Your task to perform on an android device: open app "DoorDash - Food Delivery" (install if not already installed) and go to login screen Image 0: 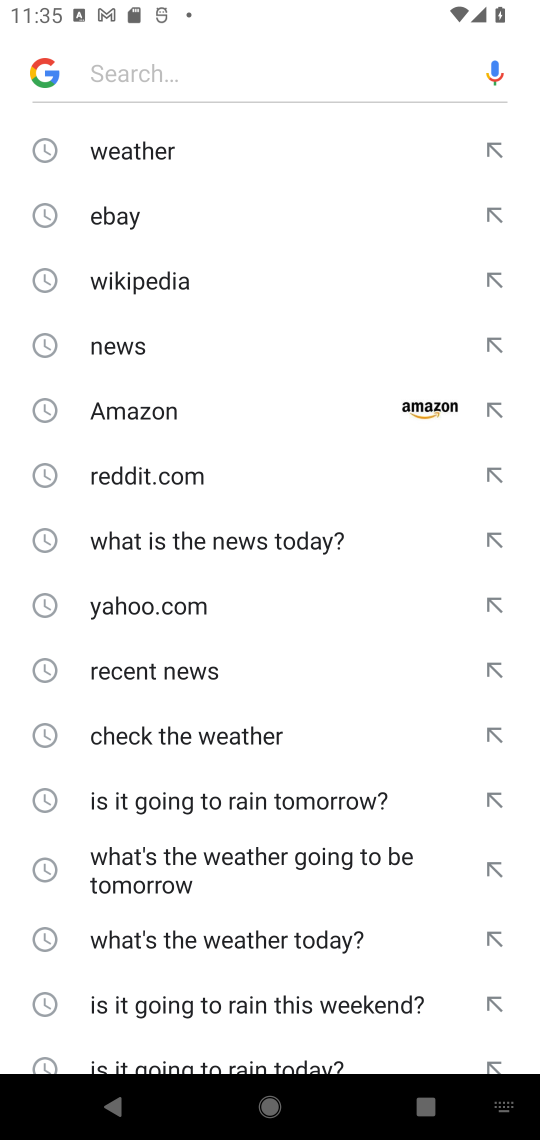
Step 0: press home button
Your task to perform on an android device: open app "DoorDash - Food Delivery" (install if not already installed) and go to login screen Image 1: 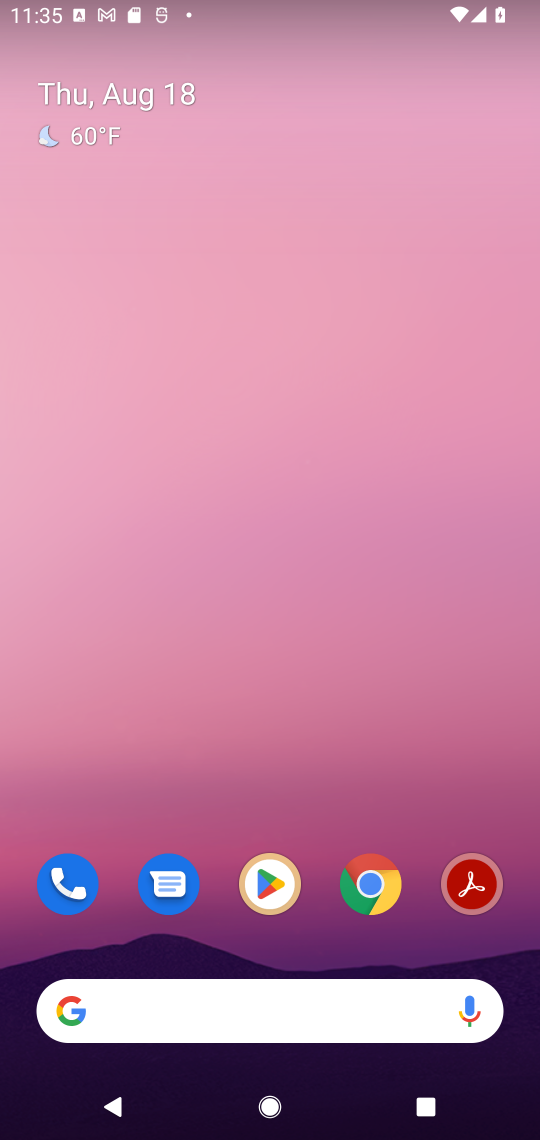
Step 1: drag from (191, 1017) to (362, 23)
Your task to perform on an android device: open app "DoorDash - Food Delivery" (install if not already installed) and go to login screen Image 2: 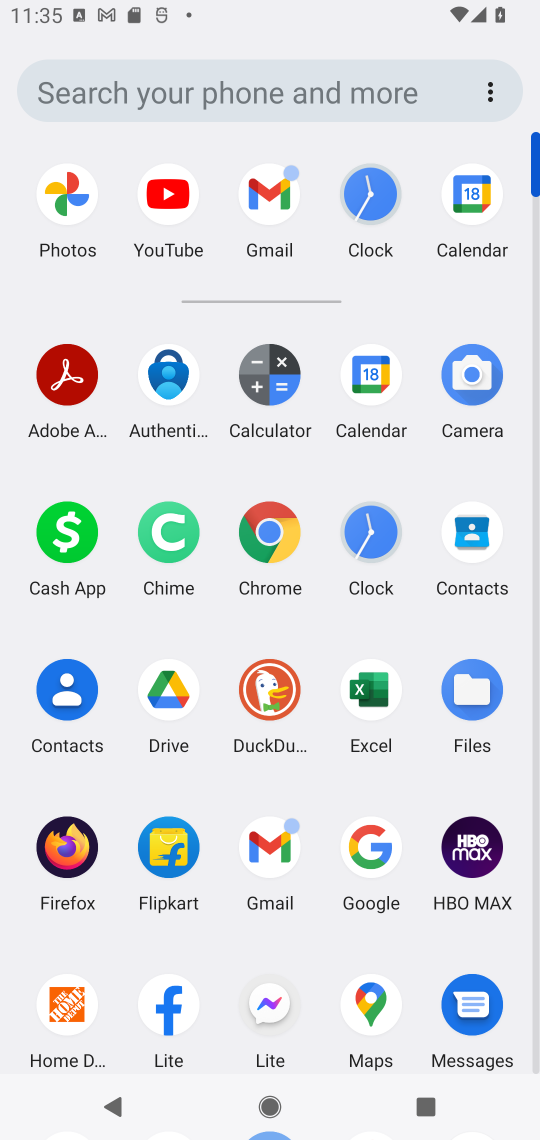
Step 2: drag from (212, 952) to (270, 367)
Your task to perform on an android device: open app "DoorDash - Food Delivery" (install if not already installed) and go to login screen Image 3: 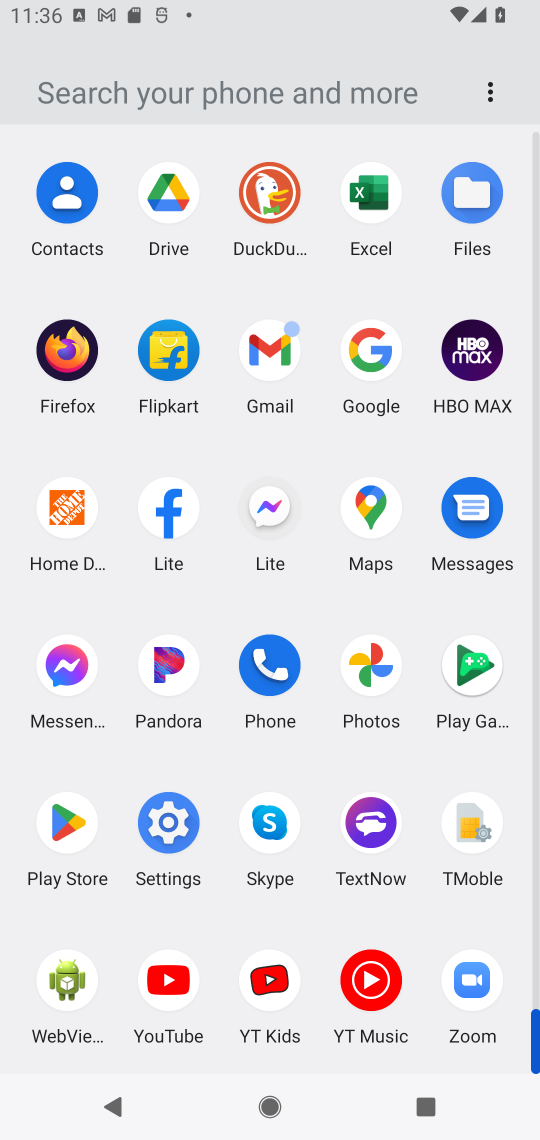
Step 3: click (73, 822)
Your task to perform on an android device: open app "DoorDash - Food Delivery" (install if not already installed) and go to login screen Image 4: 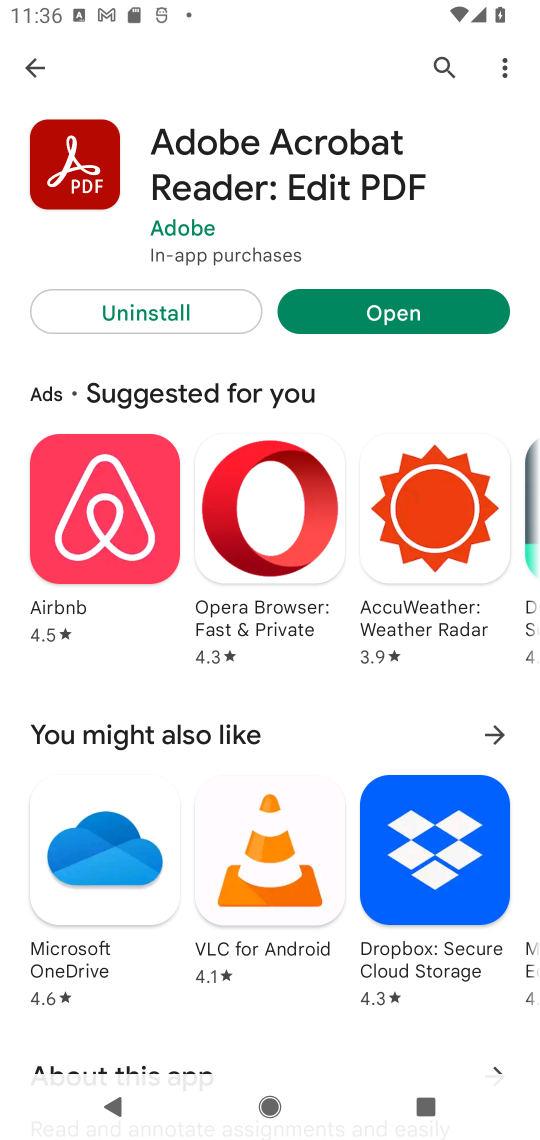
Step 4: press back button
Your task to perform on an android device: open app "DoorDash - Food Delivery" (install if not already installed) and go to login screen Image 5: 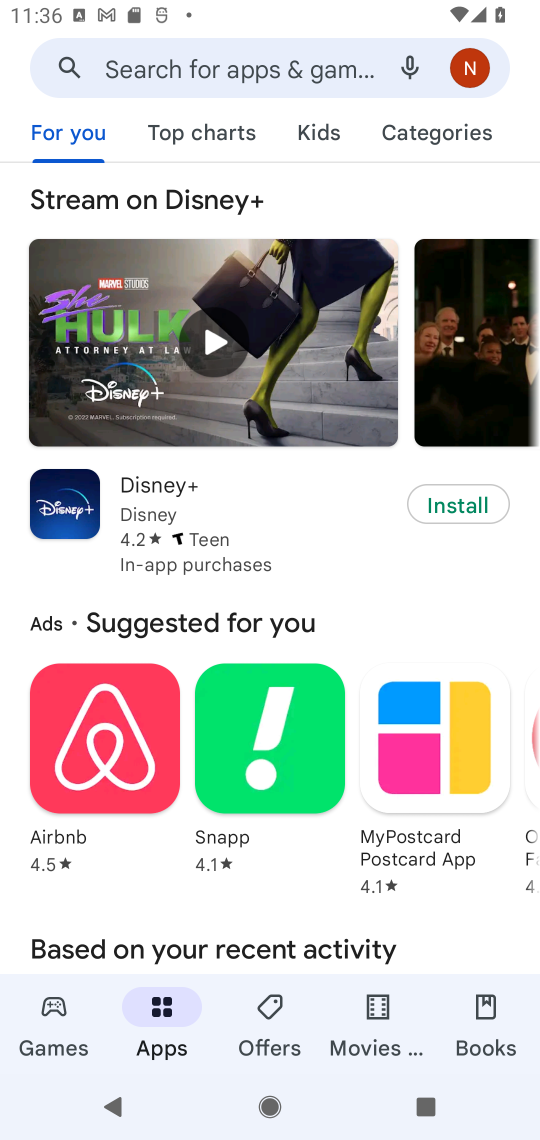
Step 5: click (293, 75)
Your task to perform on an android device: open app "DoorDash - Food Delivery" (install if not already installed) and go to login screen Image 6: 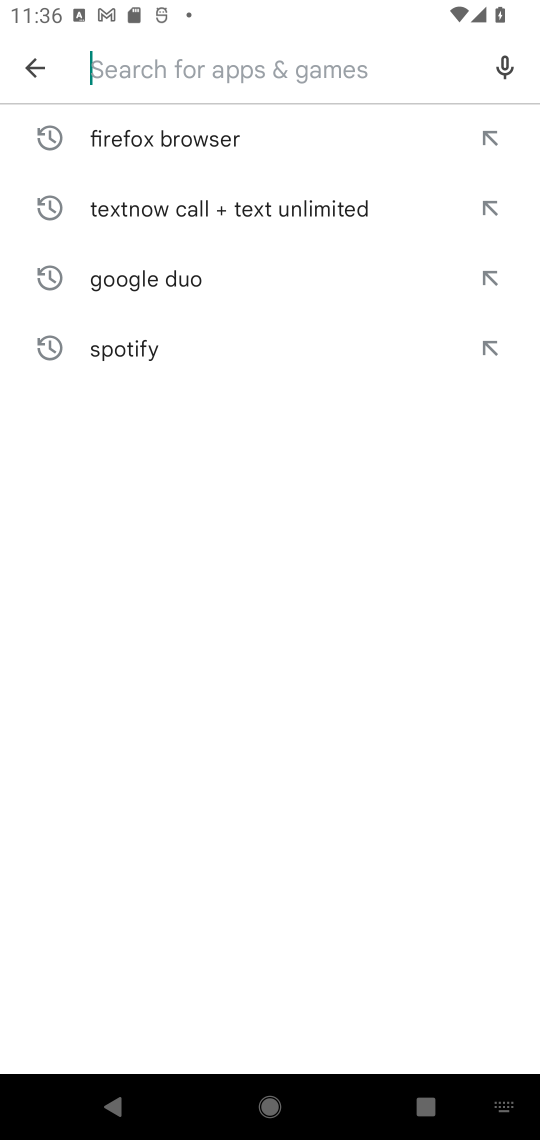
Step 6: type "DoorDash - Food Delivery"
Your task to perform on an android device: open app "DoorDash - Food Delivery" (install if not already installed) and go to login screen Image 7: 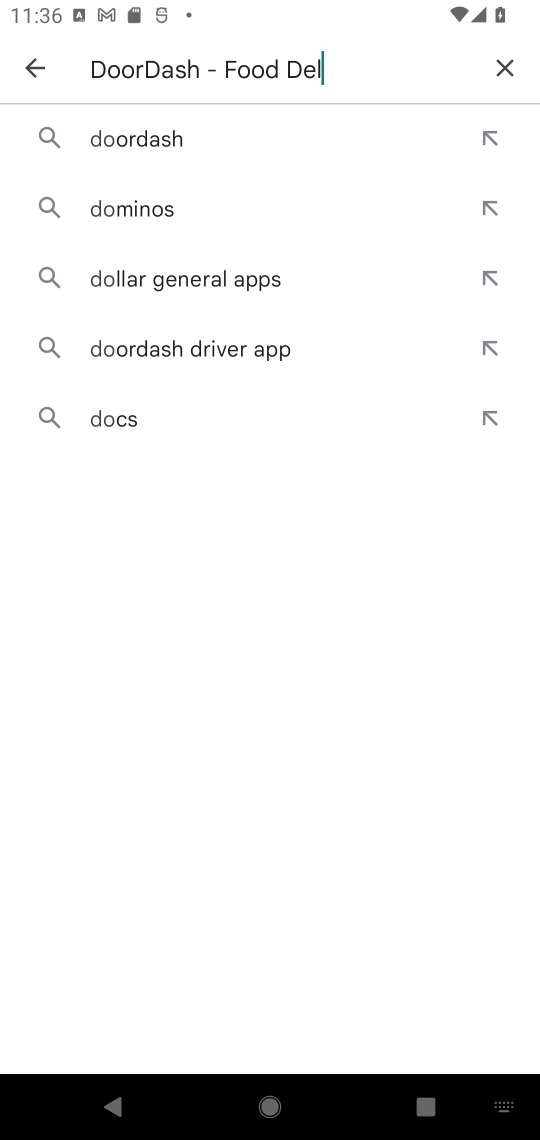
Step 7: type ""
Your task to perform on an android device: open app "DoorDash - Food Delivery" (install if not already installed) and go to login screen Image 8: 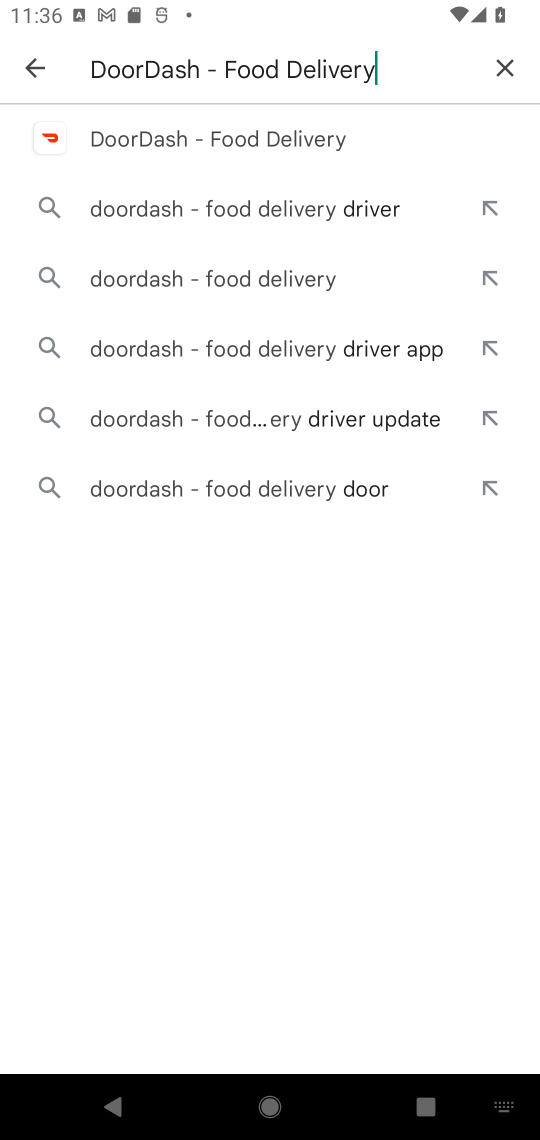
Step 8: click (241, 132)
Your task to perform on an android device: open app "DoorDash - Food Delivery" (install if not already installed) and go to login screen Image 9: 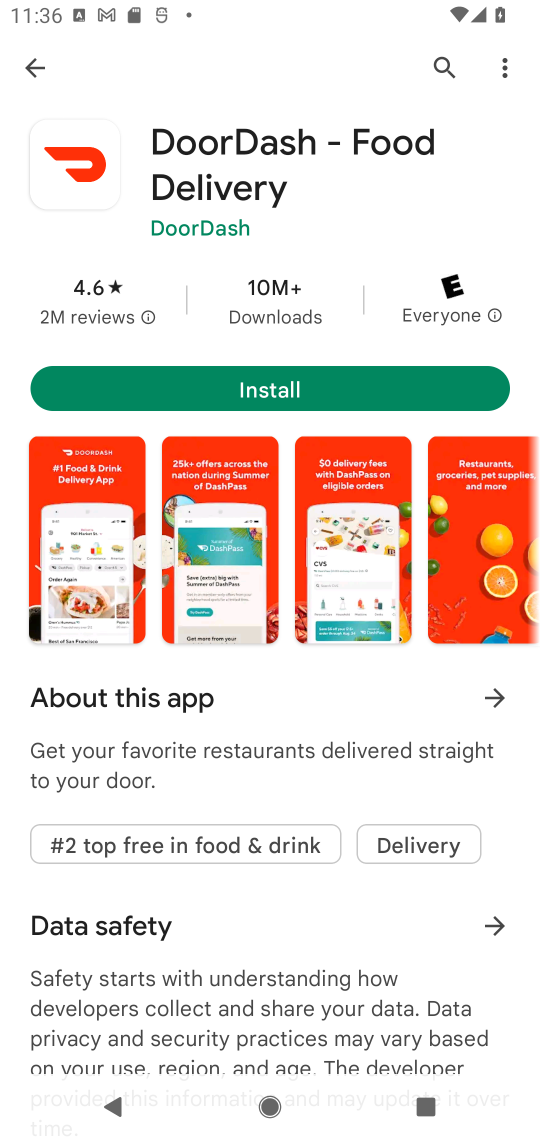
Step 9: click (284, 386)
Your task to perform on an android device: open app "DoorDash - Food Delivery" (install if not already installed) and go to login screen Image 10: 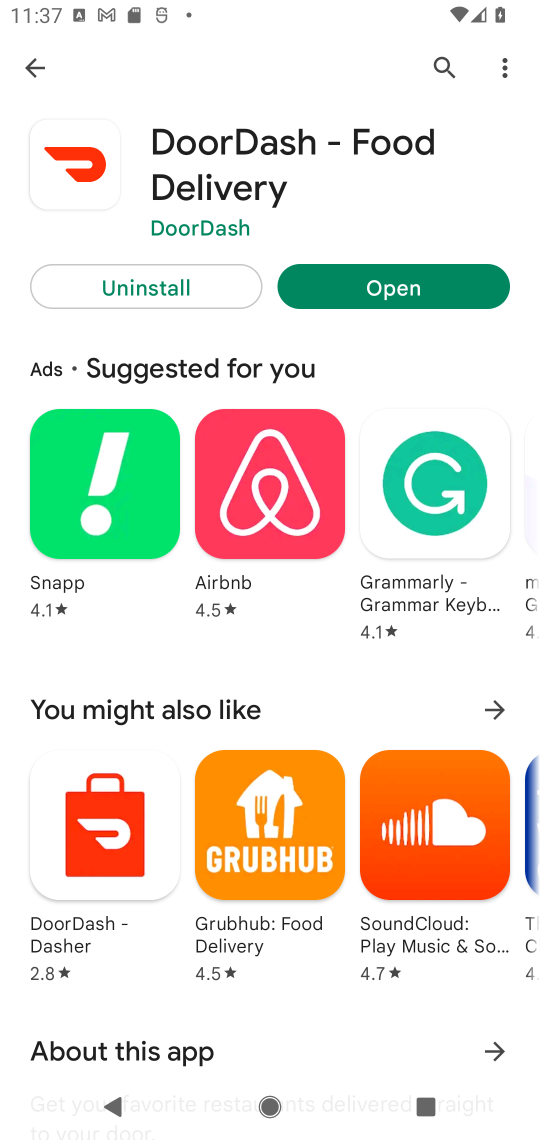
Step 10: click (403, 283)
Your task to perform on an android device: open app "DoorDash - Food Delivery" (install if not already installed) and go to login screen Image 11: 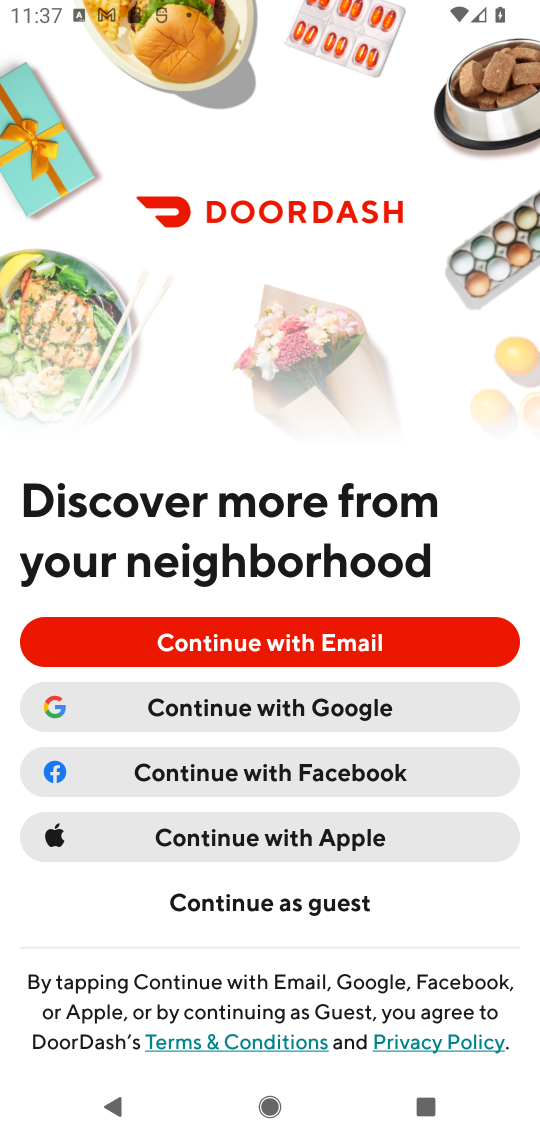
Step 11: click (347, 643)
Your task to perform on an android device: open app "DoorDash - Food Delivery" (install if not already installed) and go to login screen Image 12: 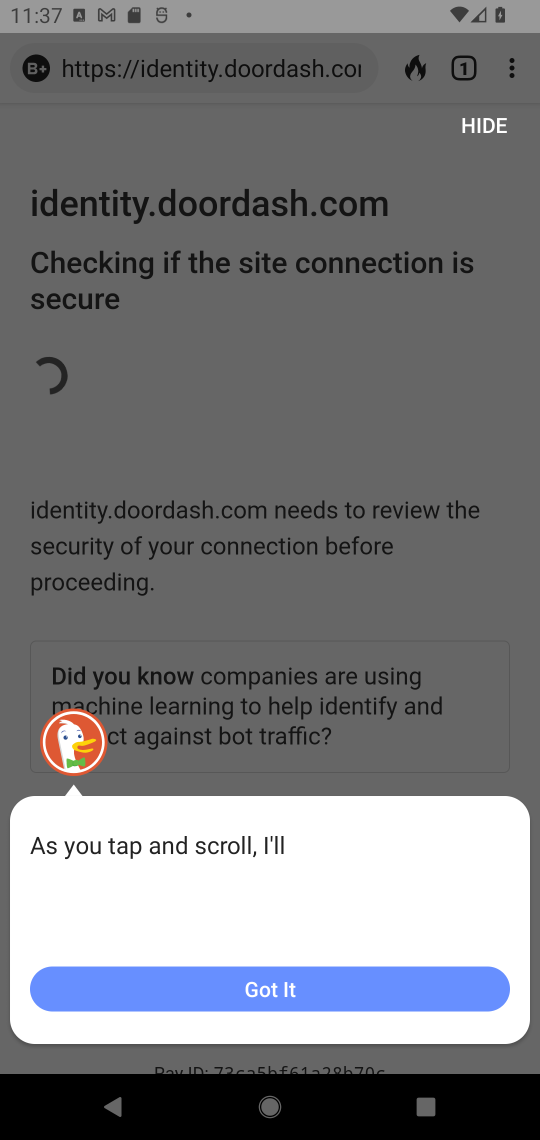
Step 12: click (258, 990)
Your task to perform on an android device: open app "DoorDash - Food Delivery" (install if not already installed) and go to login screen Image 13: 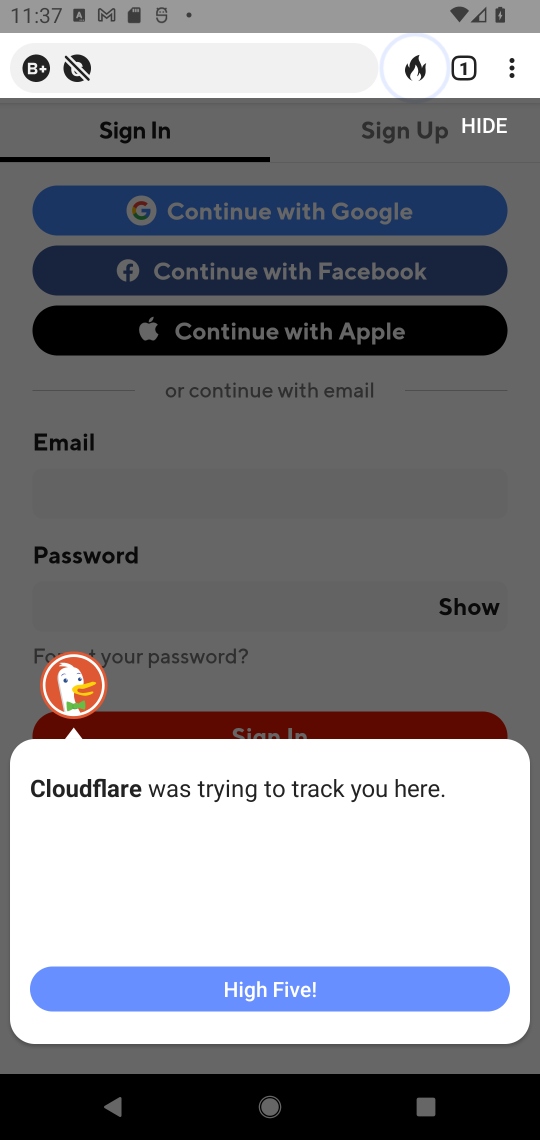
Step 13: click (301, 986)
Your task to perform on an android device: open app "DoorDash - Food Delivery" (install if not already installed) and go to login screen Image 14: 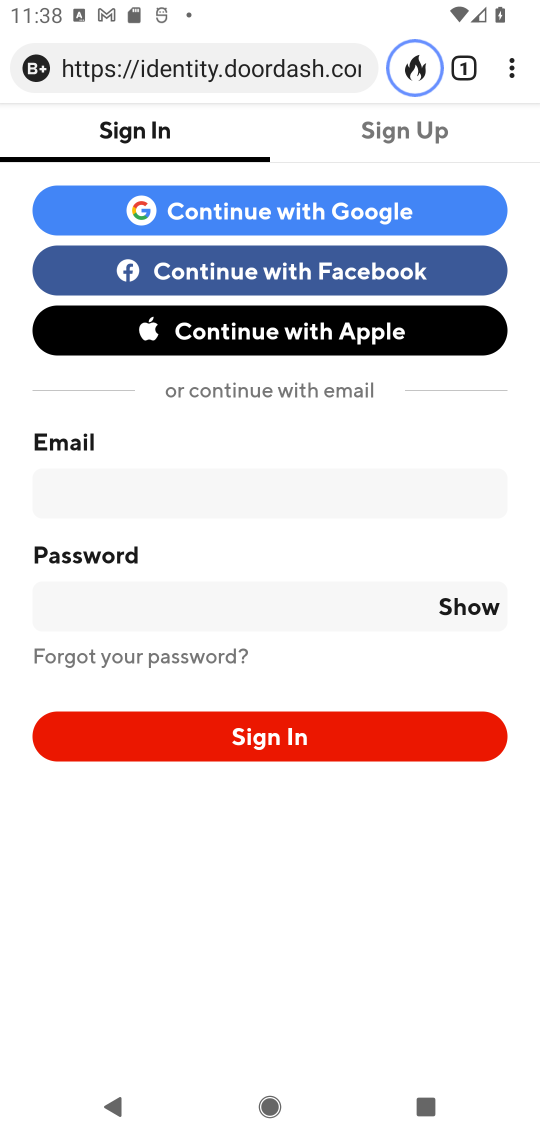
Step 14: task complete